Your task to perform on an android device: Open display settings Image 0: 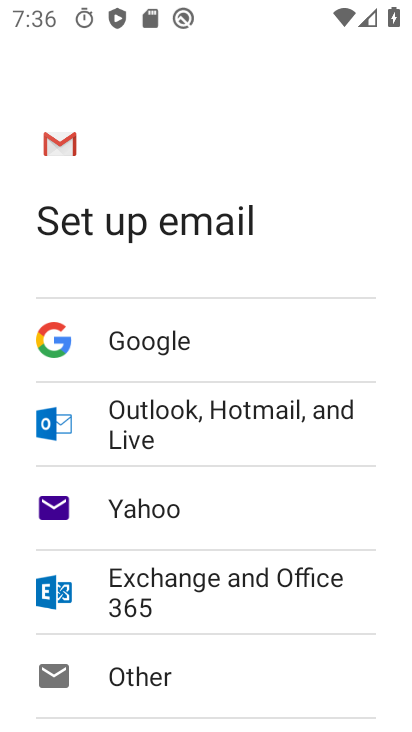
Step 0: press home button
Your task to perform on an android device: Open display settings Image 1: 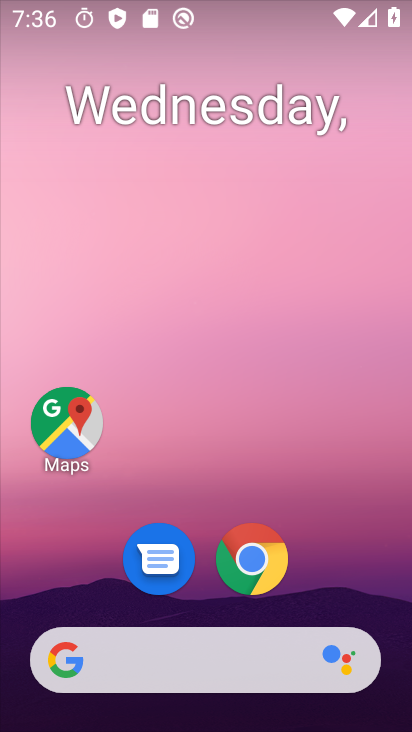
Step 1: drag from (372, 608) to (313, 0)
Your task to perform on an android device: Open display settings Image 2: 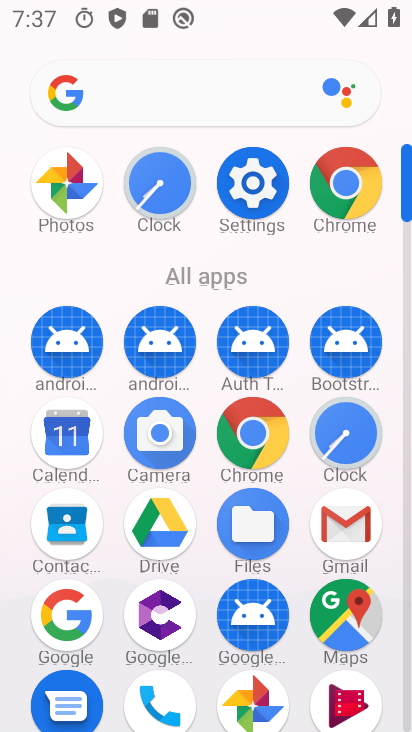
Step 2: click (256, 180)
Your task to perform on an android device: Open display settings Image 3: 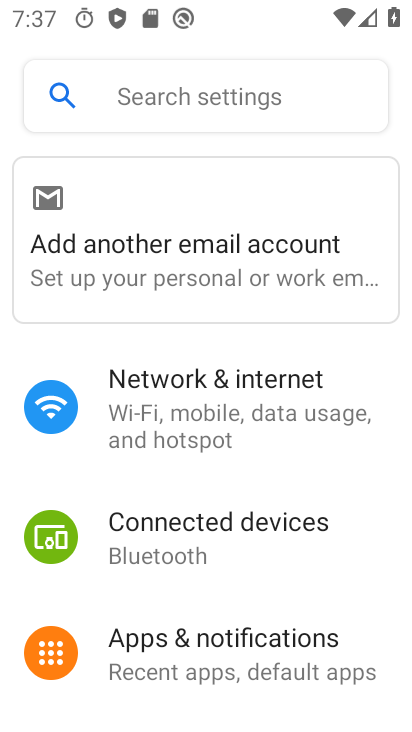
Step 3: drag from (238, 628) to (234, 213)
Your task to perform on an android device: Open display settings Image 4: 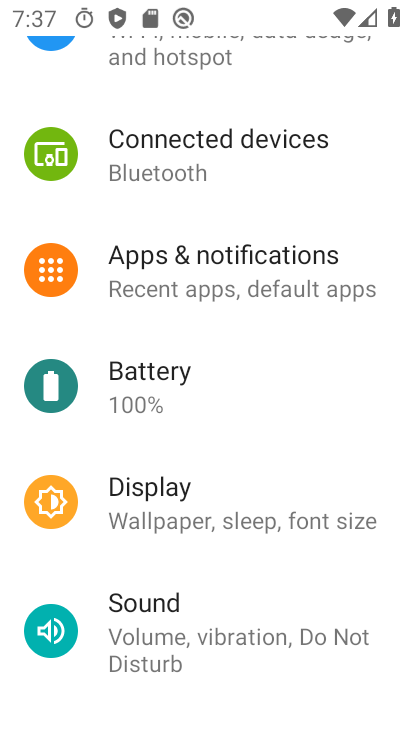
Step 4: click (159, 490)
Your task to perform on an android device: Open display settings Image 5: 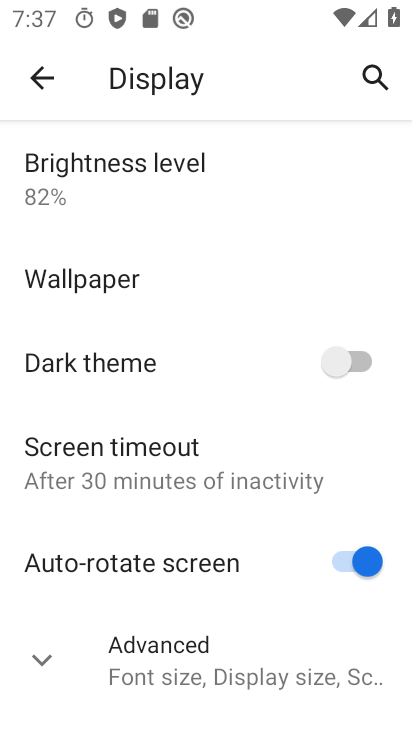
Step 5: task complete